Your task to perform on an android device: change the clock display to show seconds Image 0: 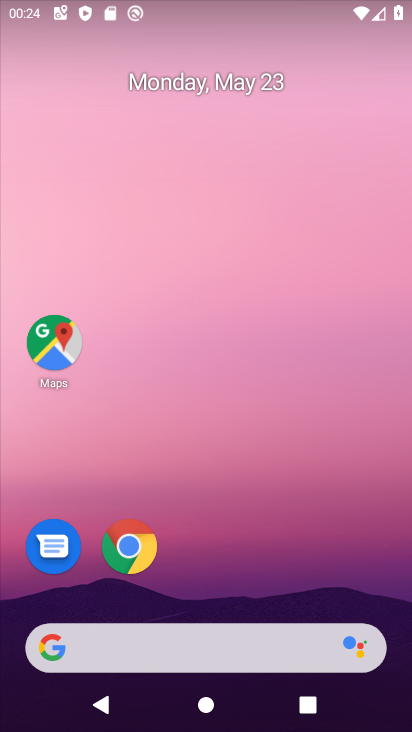
Step 0: click (277, 28)
Your task to perform on an android device: change the clock display to show seconds Image 1: 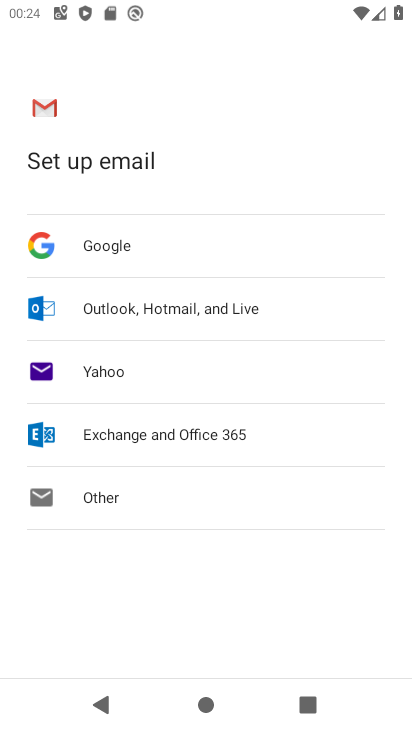
Step 1: press home button
Your task to perform on an android device: change the clock display to show seconds Image 2: 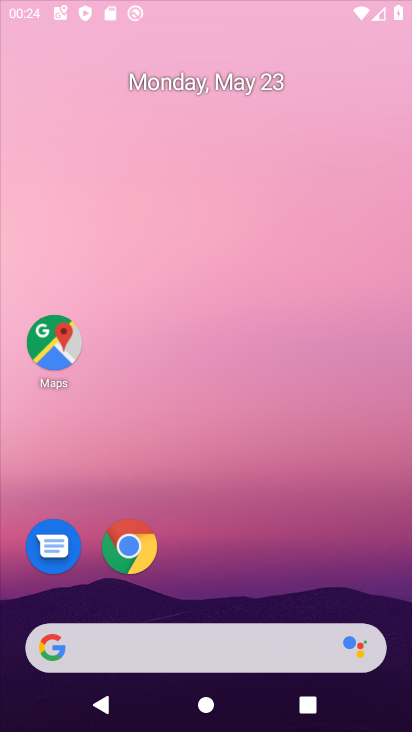
Step 2: drag from (189, 553) to (313, 60)
Your task to perform on an android device: change the clock display to show seconds Image 3: 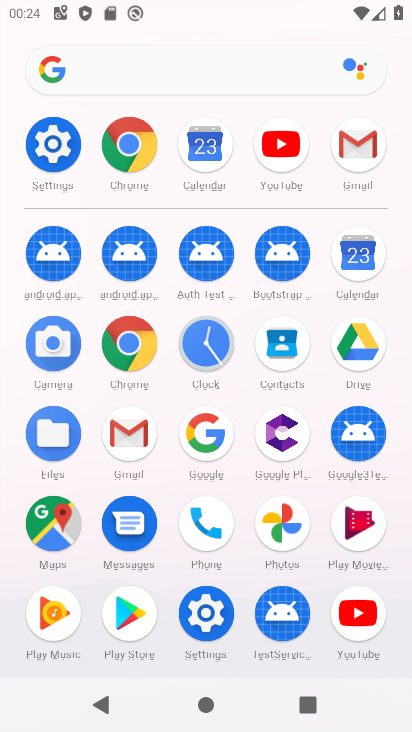
Step 3: click (129, 428)
Your task to perform on an android device: change the clock display to show seconds Image 4: 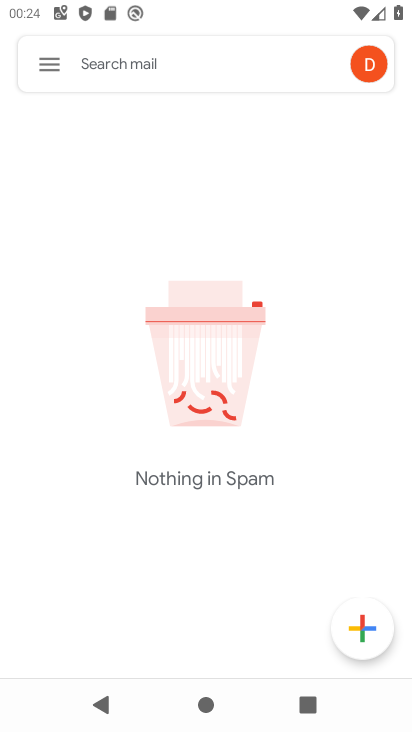
Step 4: click (60, 63)
Your task to perform on an android device: change the clock display to show seconds Image 5: 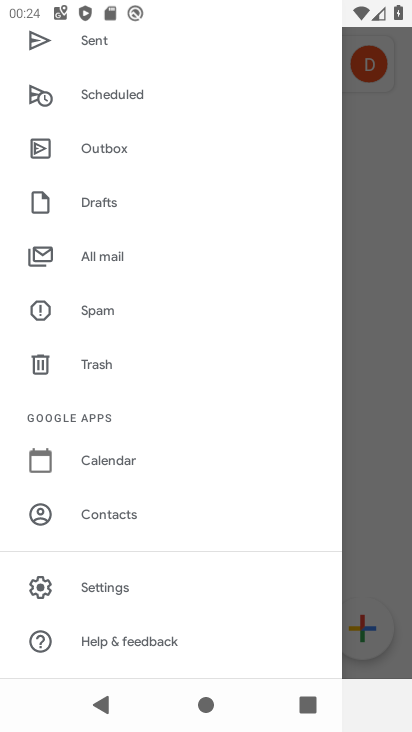
Step 5: drag from (157, 585) to (203, 187)
Your task to perform on an android device: change the clock display to show seconds Image 6: 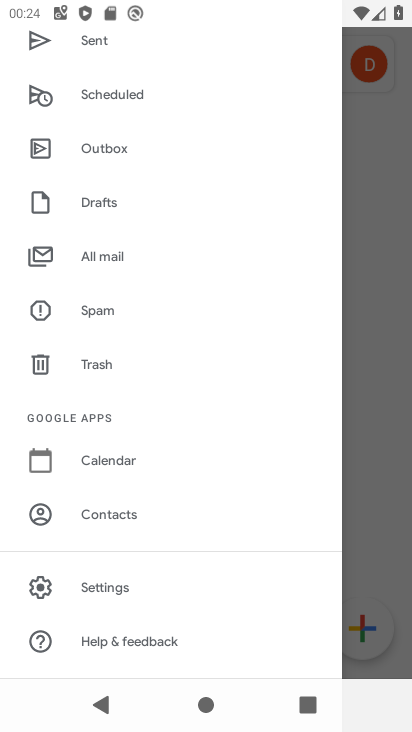
Step 6: press home button
Your task to perform on an android device: change the clock display to show seconds Image 7: 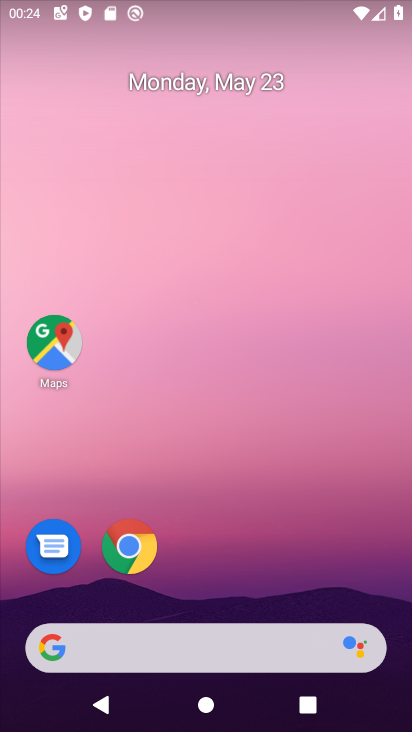
Step 7: drag from (220, 565) to (297, 148)
Your task to perform on an android device: change the clock display to show seconds Image 8: 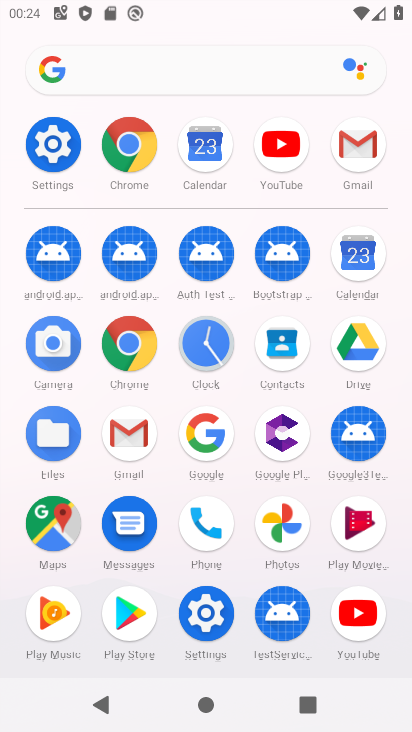
Step 8: click (195, 346)
Your task to perform on an android device: change the clock display to show seconds Image 9: 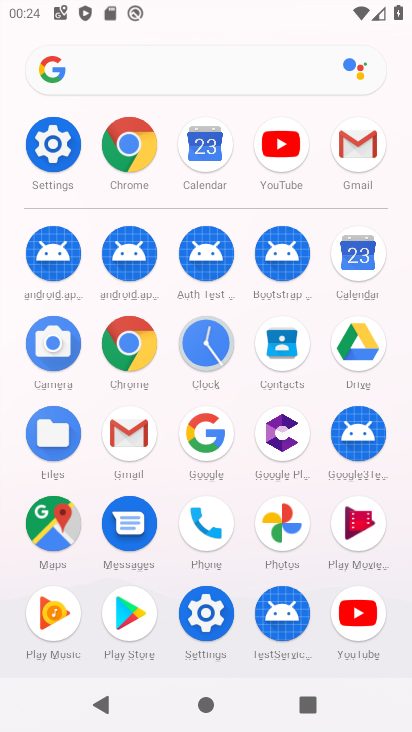
Step 9: click (195, 346)
Your task to perform on an android device: change the clock display to show seconds Image 10: 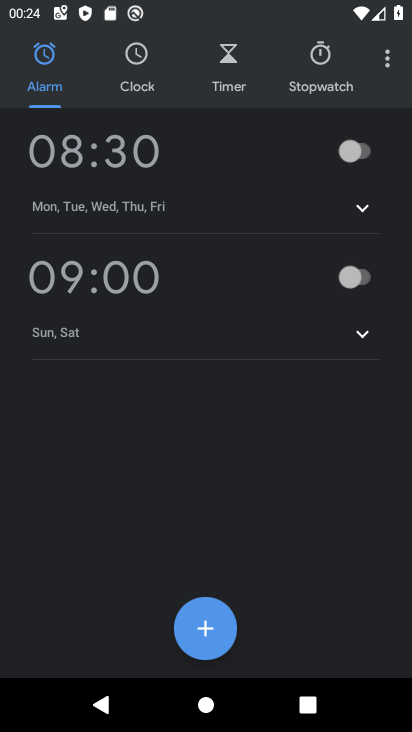
Step 10: click (382, 71)
Your task to perform on an android device: change the clock display to show seconds Image 11: 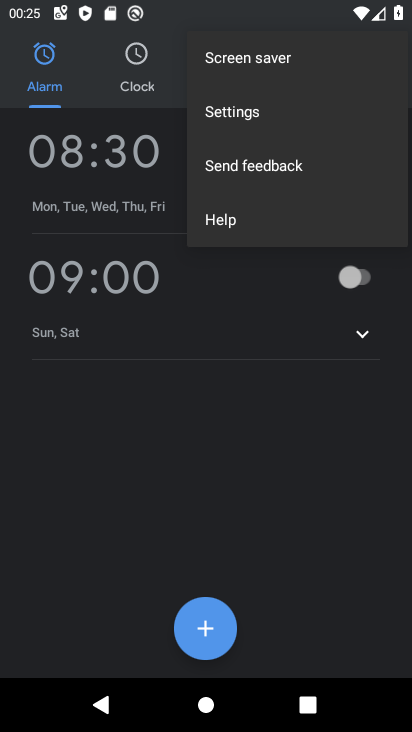
Step 11: click (226, 125)
Your task to perform on an android device: change the clock display to show seconds Image 12: 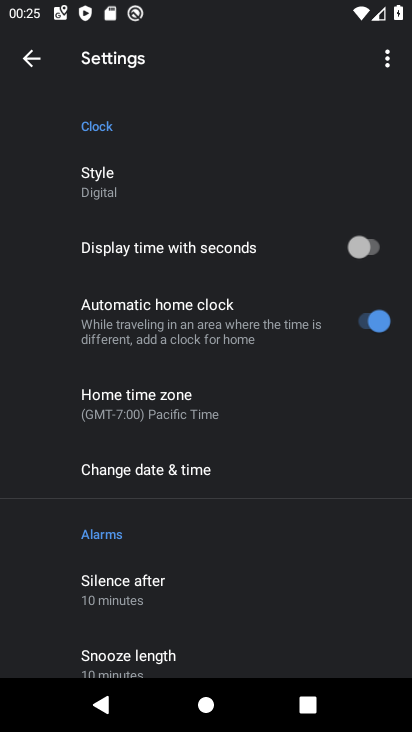
Step 12: drag from (230, 498) to (232, 282)
Your task to perform on an android device: change the clock display to show seconds Image 13: 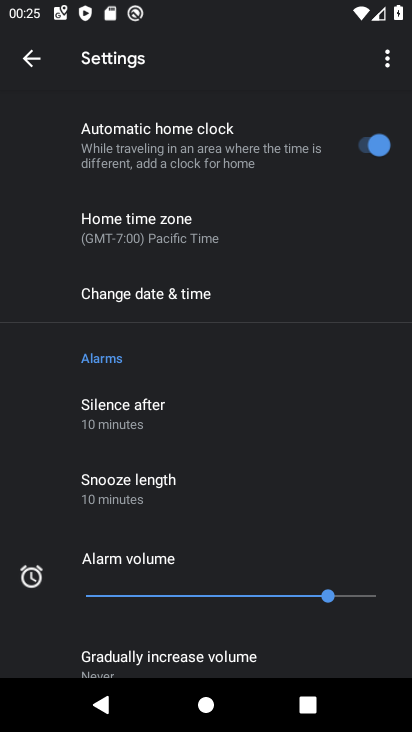
Step 13: drag from (245, 192) to (277, 697)
Your task to perform on an android device: change the clock display to show seconds Image 14: 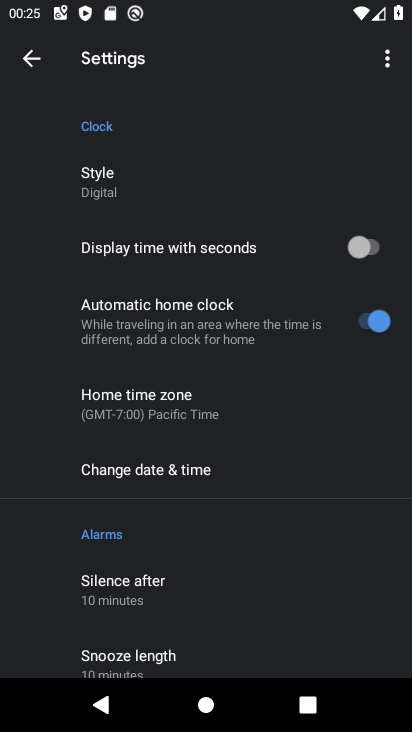
Step 14: click (344, 246)
Your task to perform on an android device: change the clock display to show seconds Image 15: 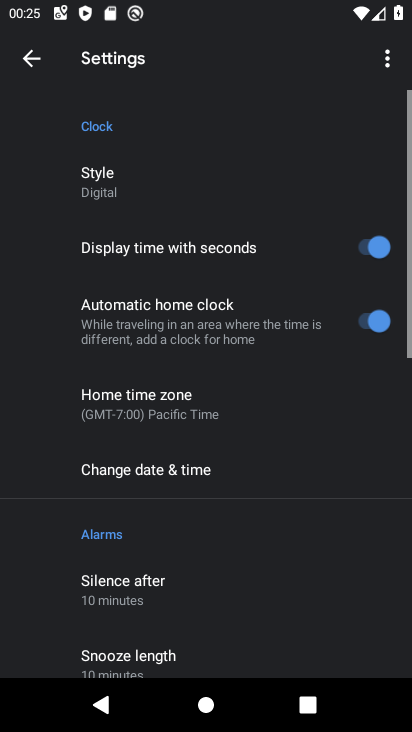
Step 15: task complete